Your task to perform on an android device: check android version Image 0: 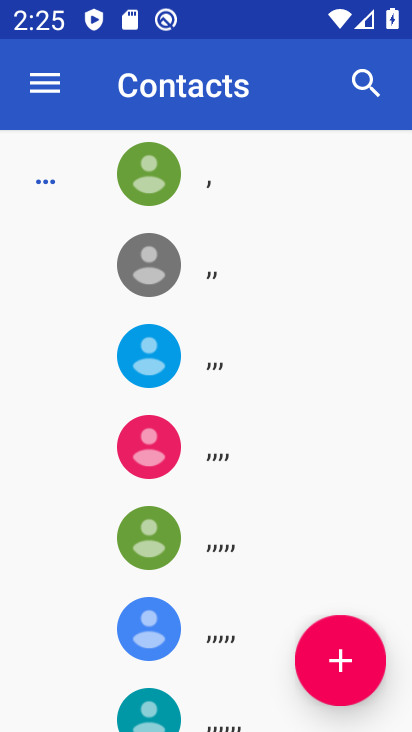
Step 0: press home button
Your task to perform on an android device: check android version Image 1: 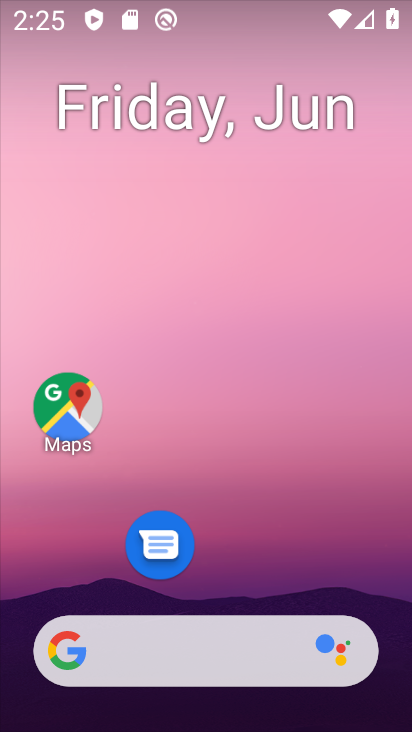
Step 1: drag from (265, 527) to (267, 14)
Your task to perform on an android device: check android version Image 2: 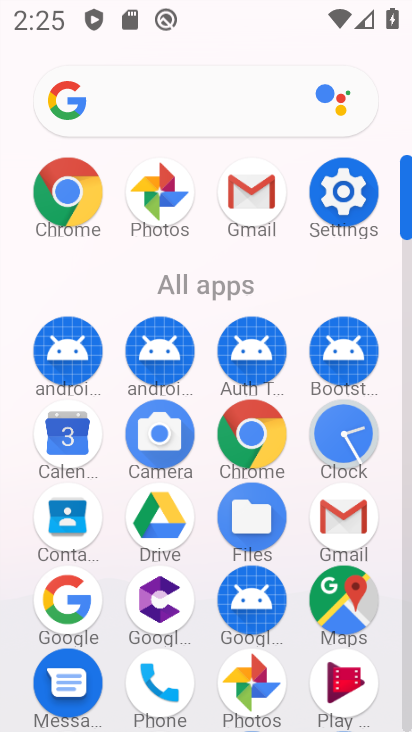
Step 2: click (359, 208)
Your task to perform on an android device: check android version Image 3: 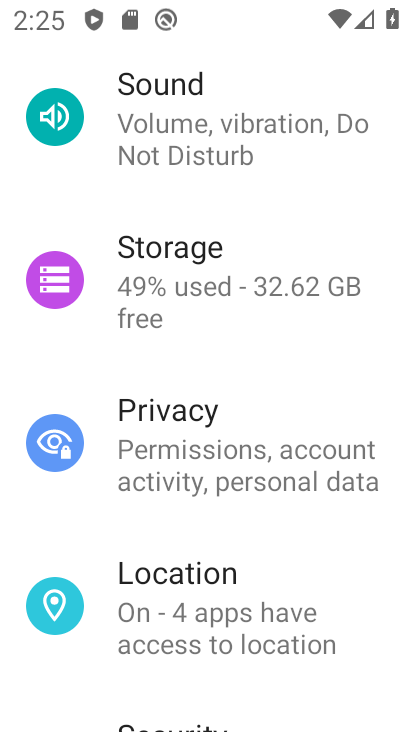
Step 3: drag from (169, 620) to (259, 128)
Your task to perform on an android device: check android version Image 4: 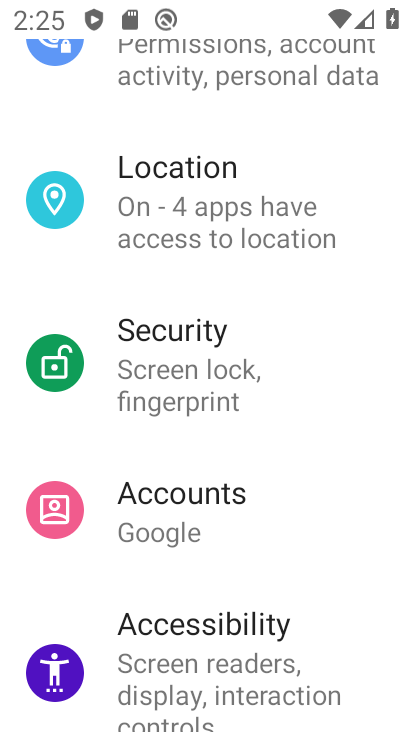
Step 4: drag from (201, 611) to (255, 76)
Your task to perform on an android device: check android version Image 5: 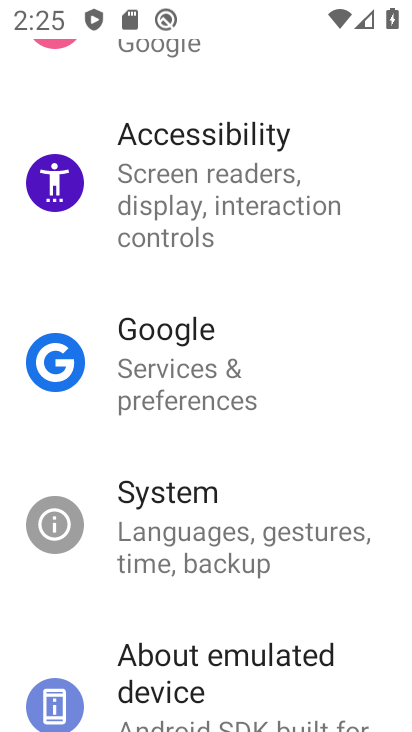
Step 5: drag from (190, 691) to (225, 430)
Your task to perform on an android device: check android version Image 6: 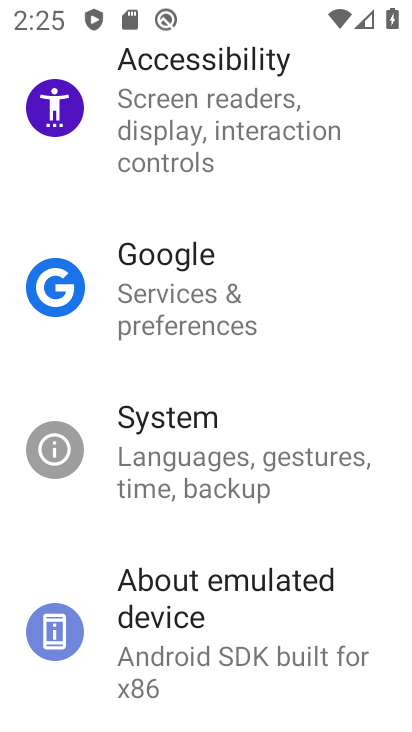
Step 6: click (185, 624)
Your task to perform on an android device: check android version Image 7: 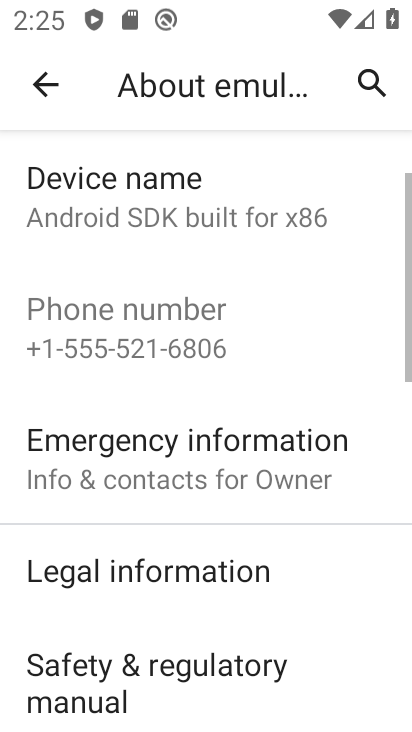
Step 7: drag from (236, 585) to (270, 189)
Your task to perform on an android device: check android version Image 8: 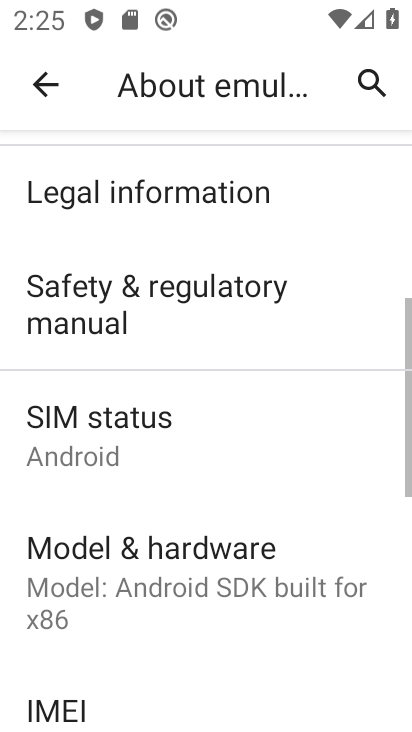
Step 8: drag from (209, 571) to (276, 119)
Your task to perform on an android device: check android version Image 9: 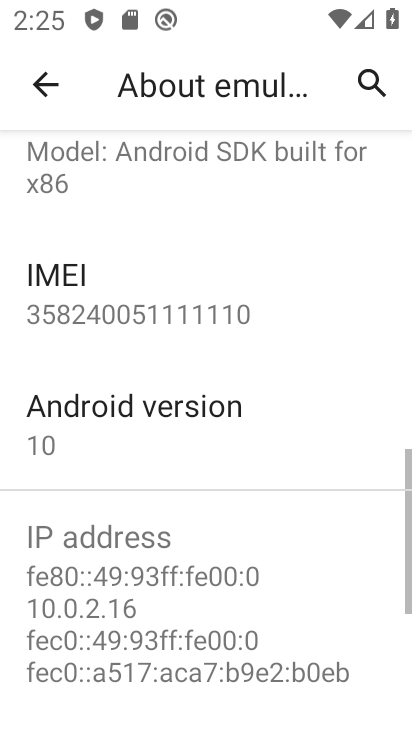
Step 9: click (201, 450)
Your task to perform on an android device: check android version Image 10: 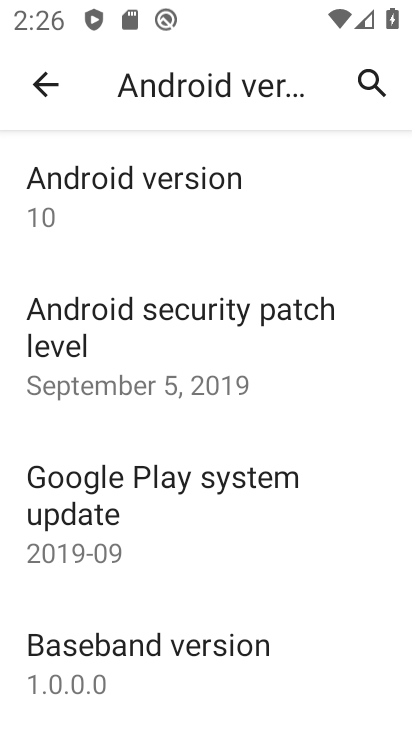
Step 10: task complete